Your task to perform on an android device: What's the weather today? Image 0: 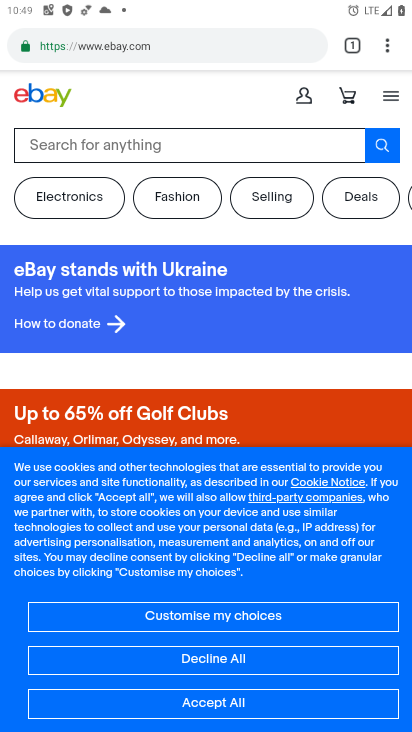
Step 0: press home button
Your task to perform on an android device: What's the weather today? Image 1: 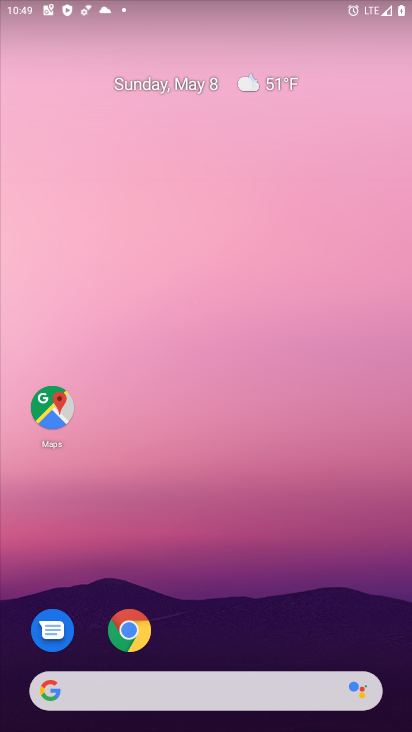
Step 1: drag from (281, 640) to (258, 102)
Your task to perform on an android device: What's the weather today? Image 2: 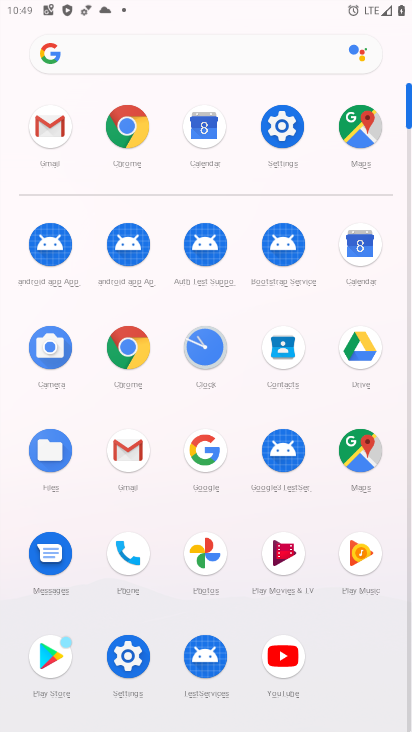
Step 2: click (131, 121)
Your task to perform on an android device: What's the weather today? Image 3: 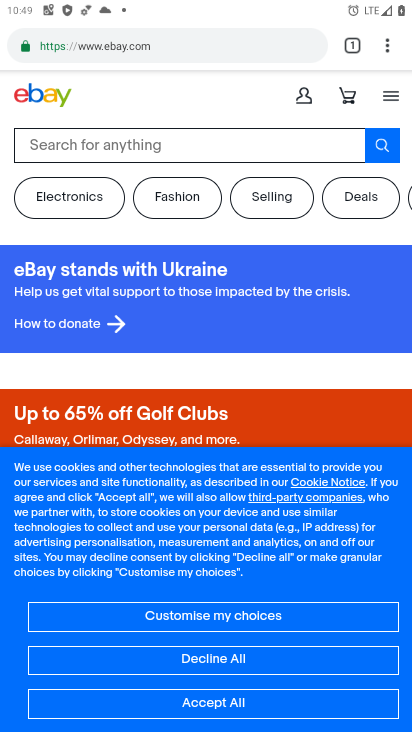
Step 3: press back button
Your task to perform on an android device: What's the weather today? Image 4: 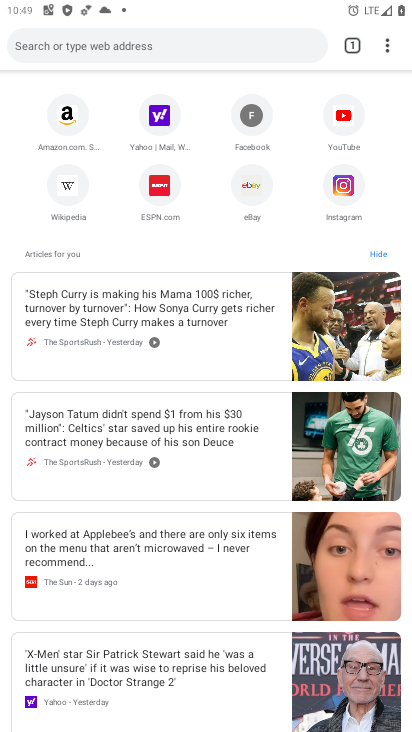
Step 4: click (113, 44)
Your task to perform on an android device: What's the weather today? Image 5: 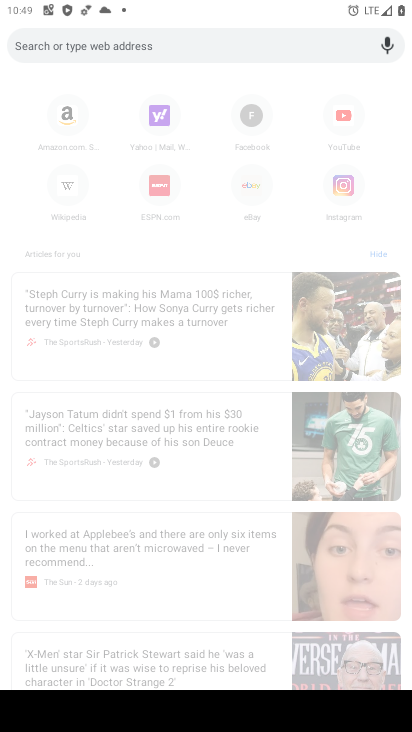
Step 5: press home button
Your task to perform on an android device: What's the weather today? Image 6: 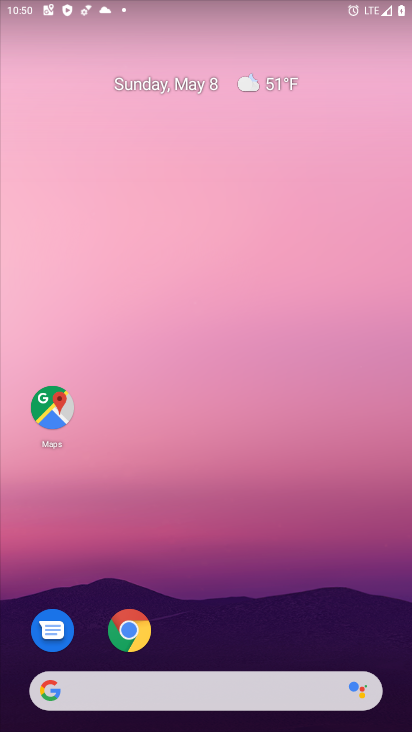
Step 6: click (108, 686)
Your task to perform on an android device: What's the weather today? Image 7: 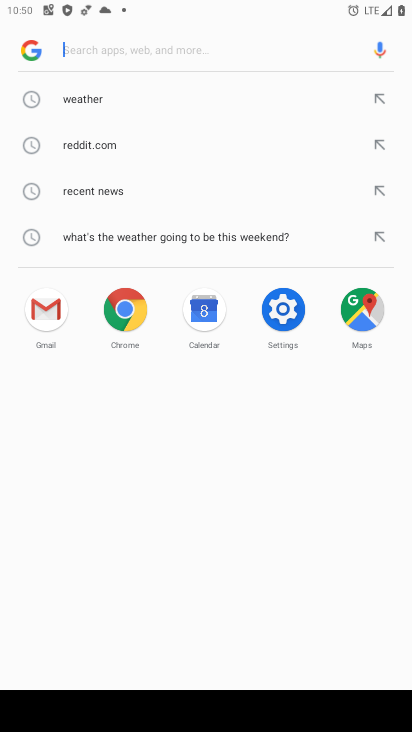
Step 7: click (134, 99)
Your task to perform on an android device: What's the weather today? Image 8: 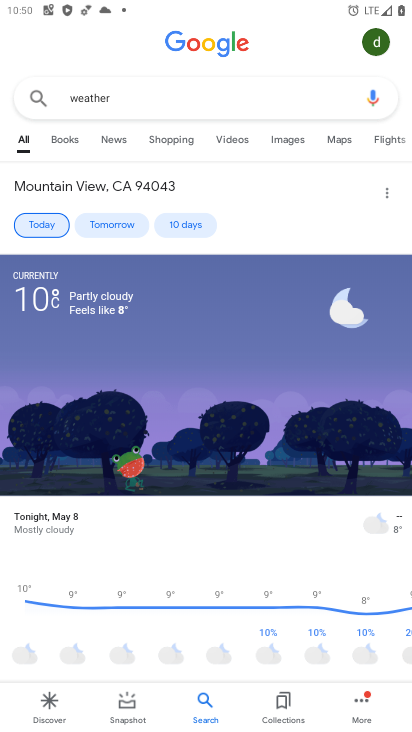
Step 8: task complete